Your task to perform on an android device: Open calendar and show me the third week of next month Image 0: 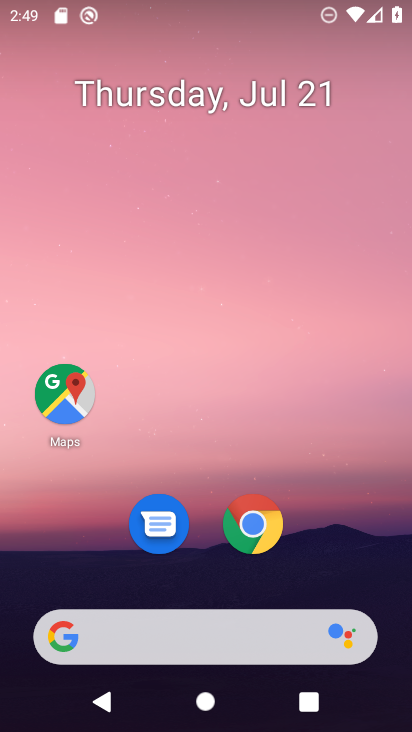
Step 0: press home button
Your task to perform on an android device: Open calendar and show me the third week of next month Image 1: 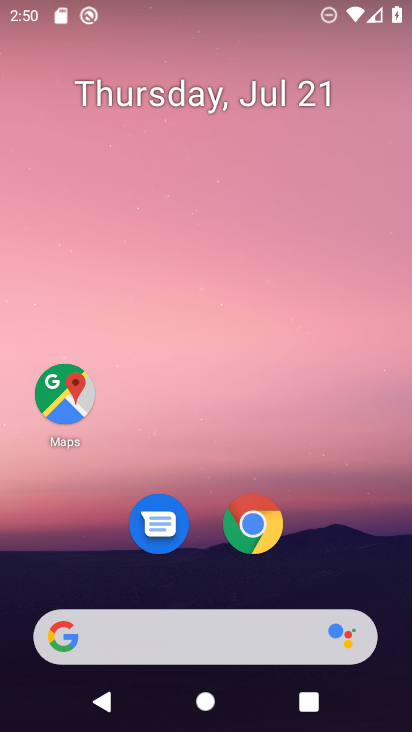
Step 1: drag from (148, 648) to (248, 225)
Your task to perform on an android device: Open calendar and show me the third week of next month Image 2: 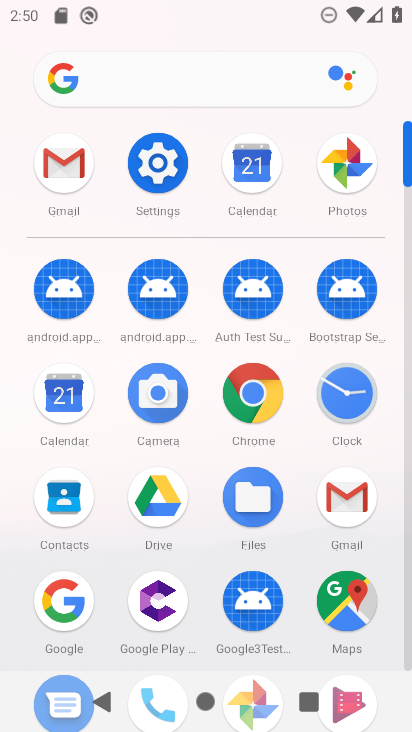
Step 2: click (70, 397)
Your task to perform on an android device: Open calendar and show me the third week of next month Image 3: 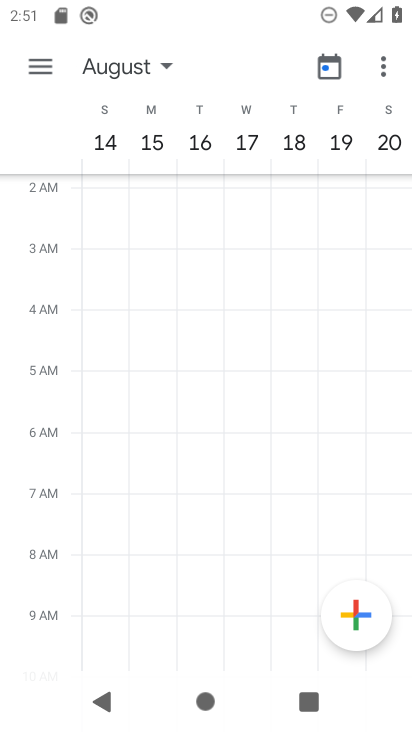
Step 3: task complete